Your task to perform on an android device: turn off airplane mode Image 0: 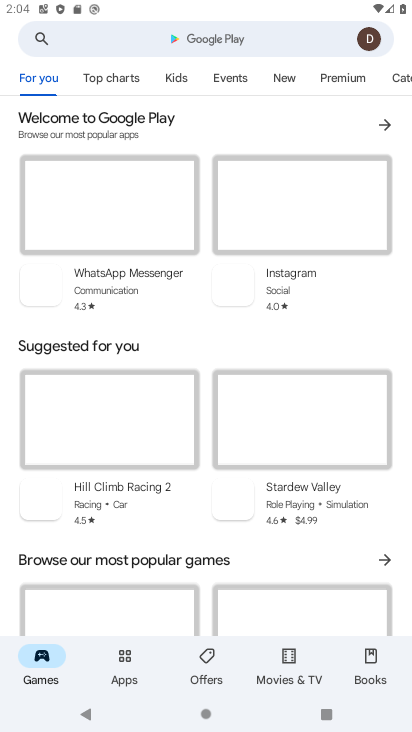
Step 0: press home button
Your task to perform on an android device: turn off airplane mode Image 1: 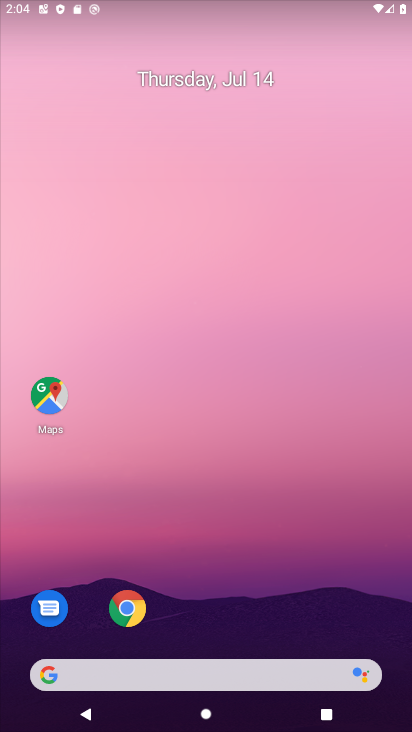
Step 1: task complete